Your task to perform on an android device: change the clock display to digital Image 0: 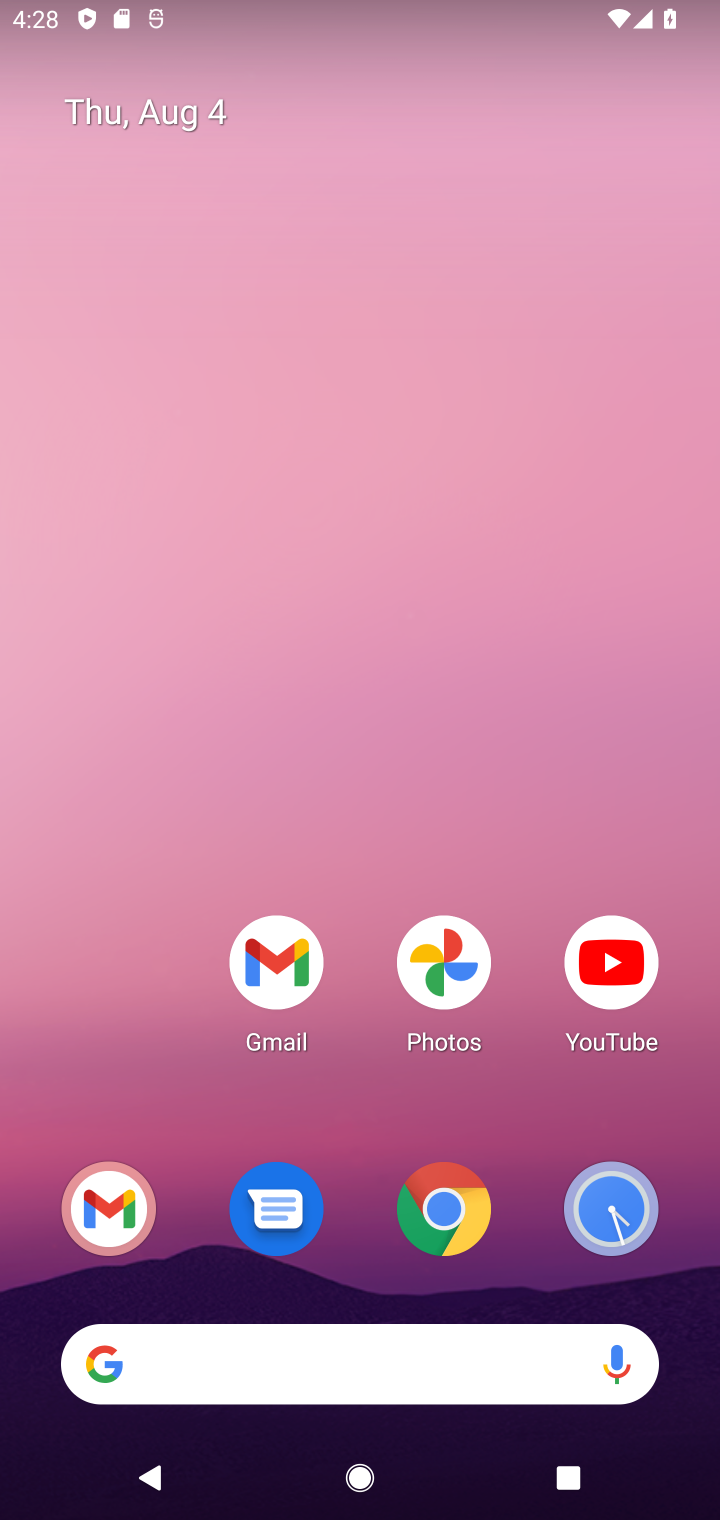
Step 0: drag from (364, 869) to (441, 240)
Your task to perform on an android device: change the clock display to digital Image 1: 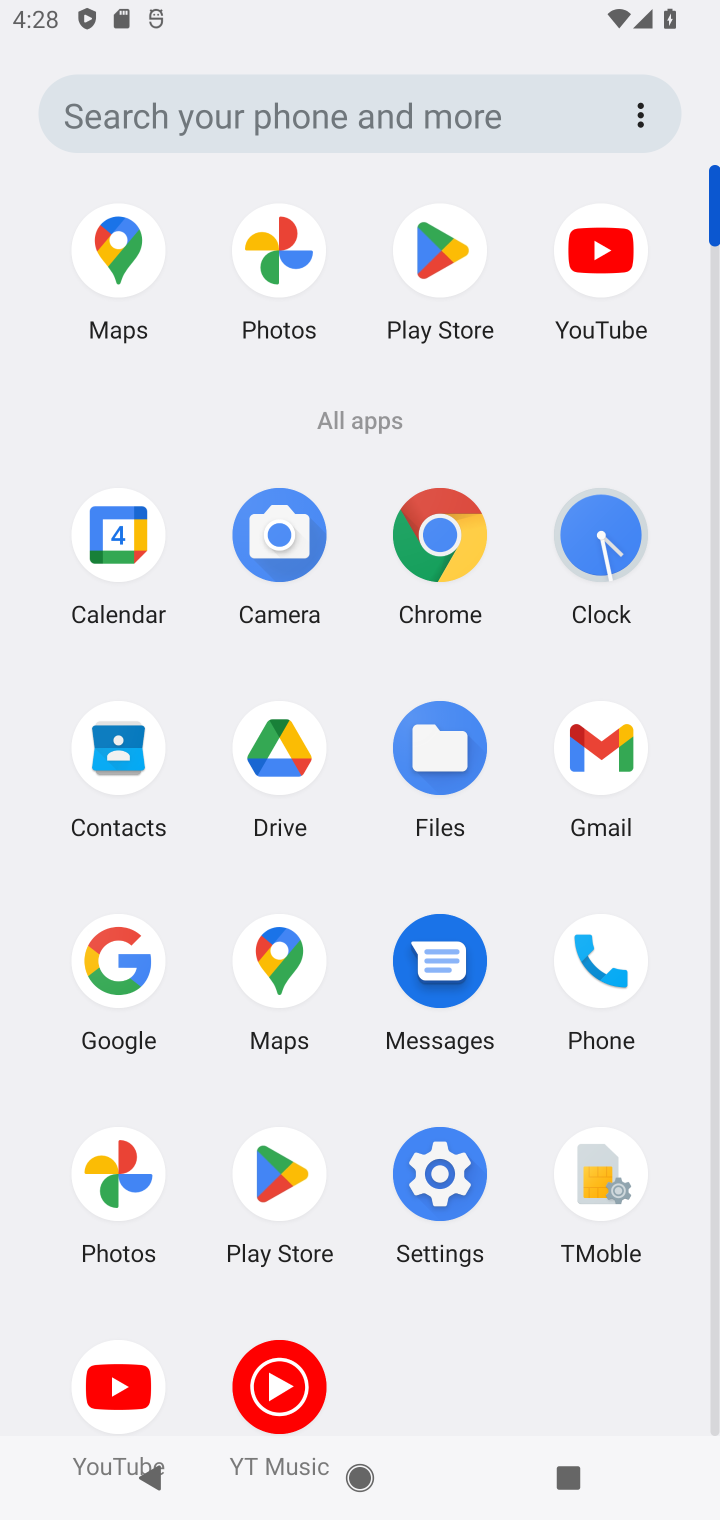
Step 1: click (598, 519)
Your task to perform on an android device: change the clock display to digital Image 2: 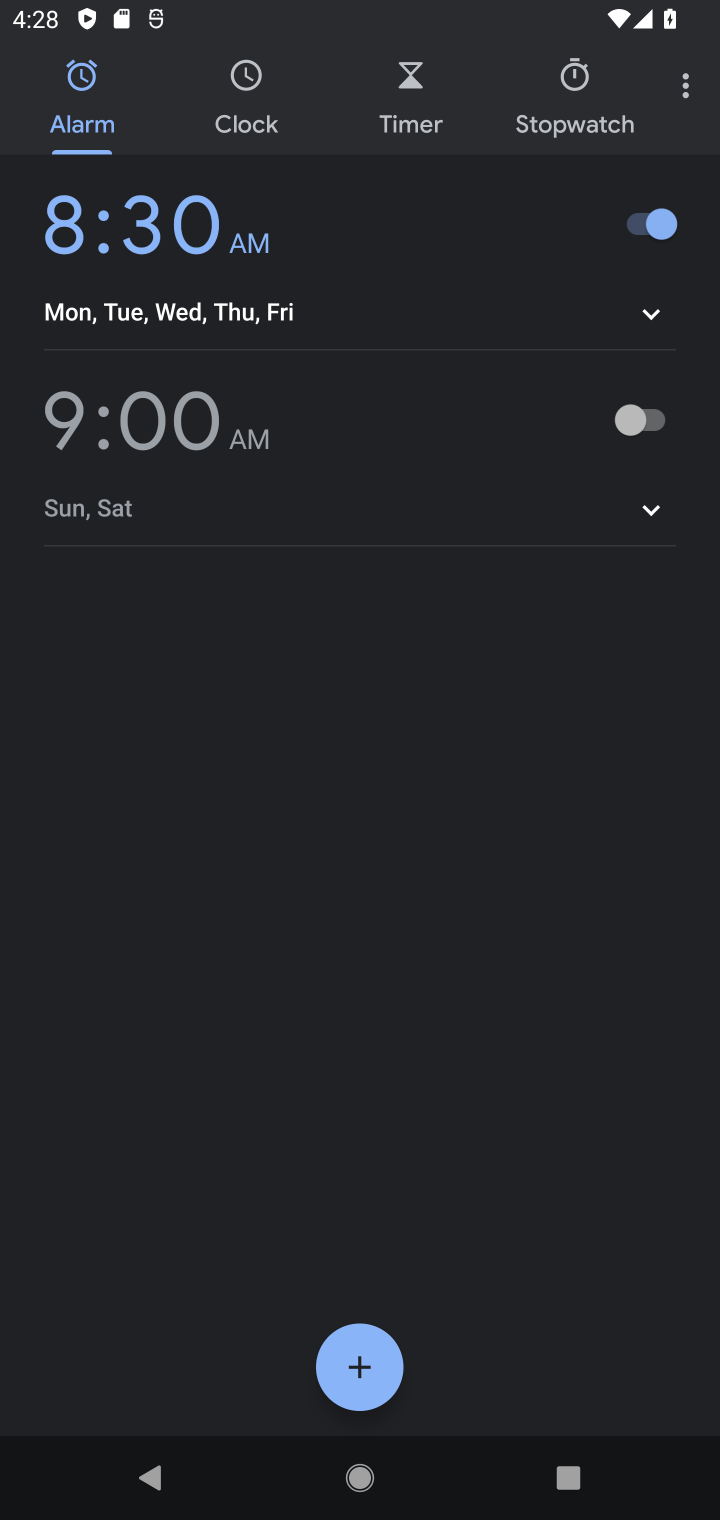
Step 2: click (692, 100)
Your task to perform on an android device: change the clock display to digital Image 3: 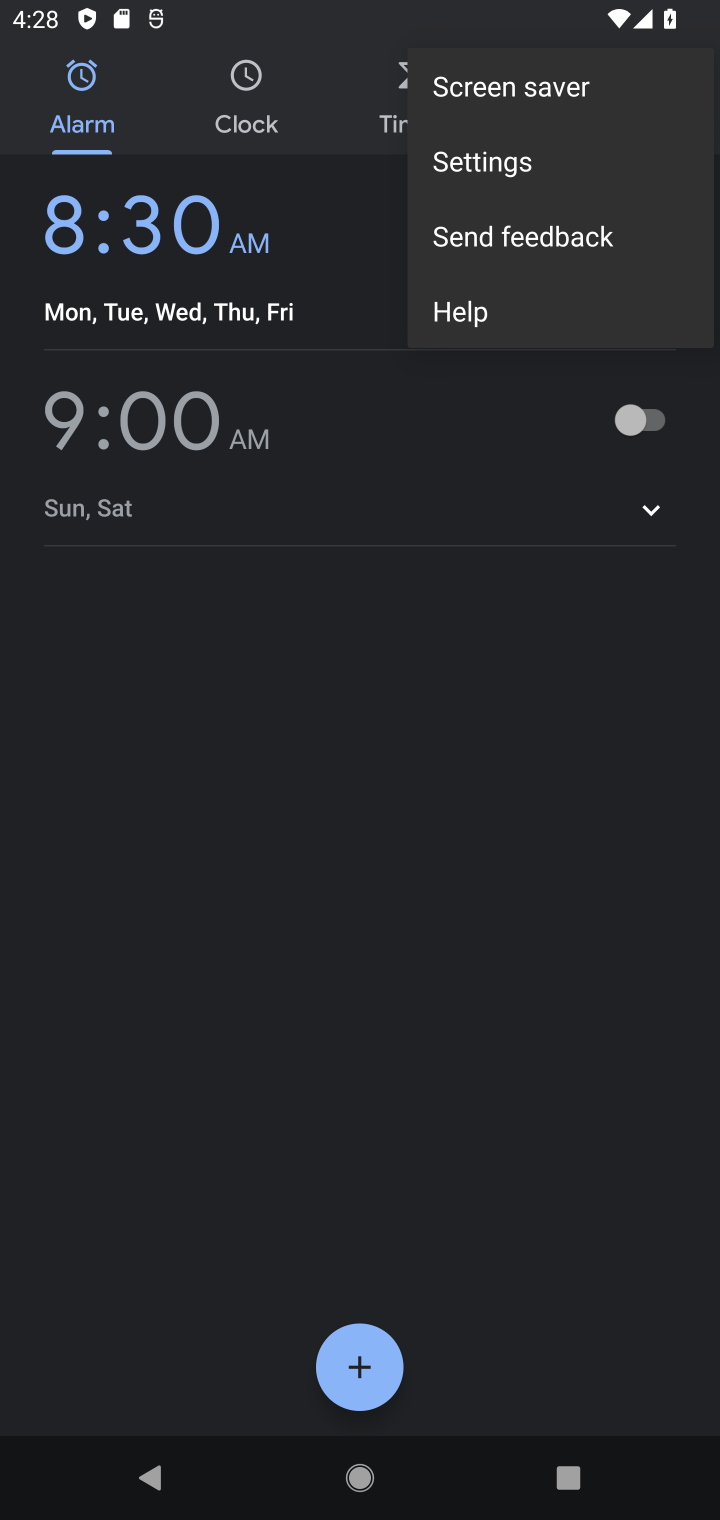
Step 3: click (525, 169)
Your task to perform on an android device: change the clock display to digital Image 4: 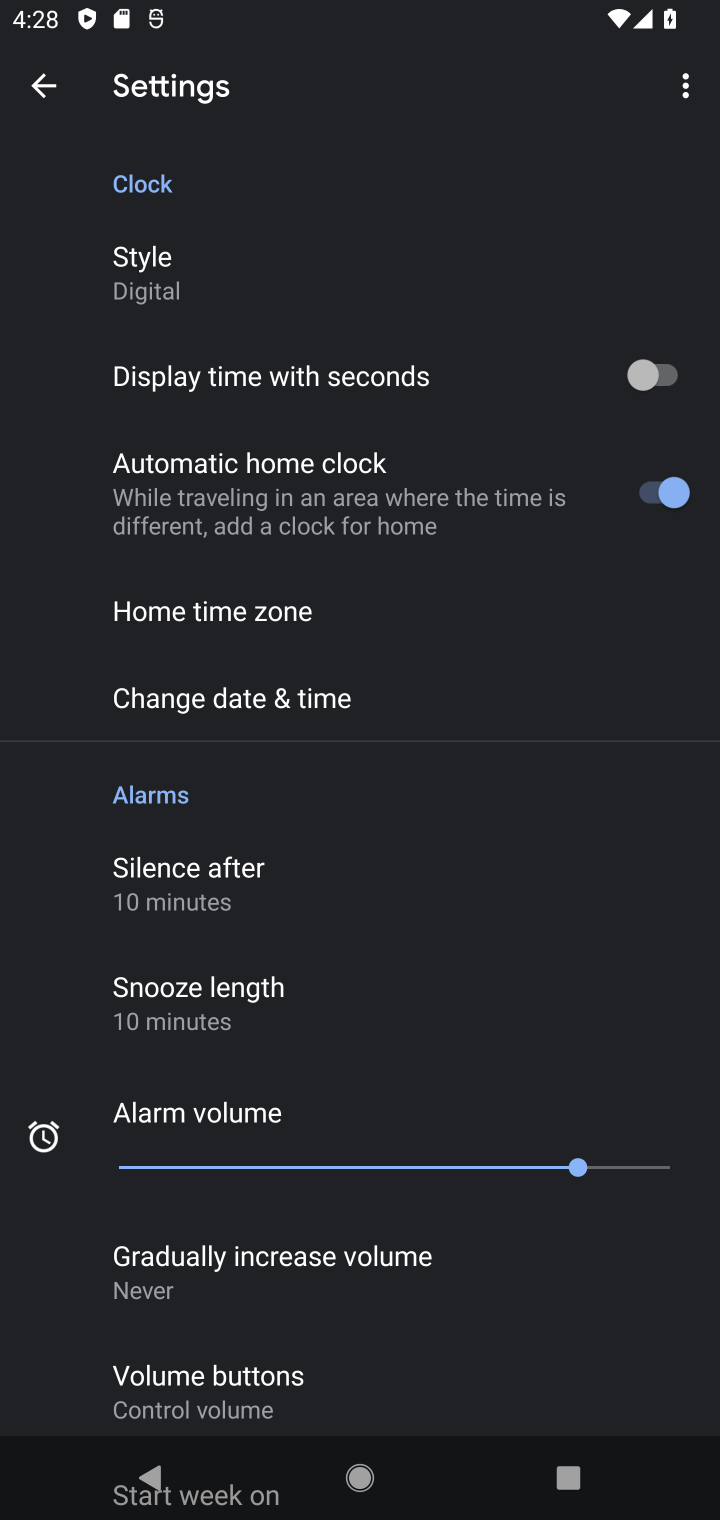
Step 4: task complete